Your task to perform on an android device: snooze an email in the gmail app Image 0: 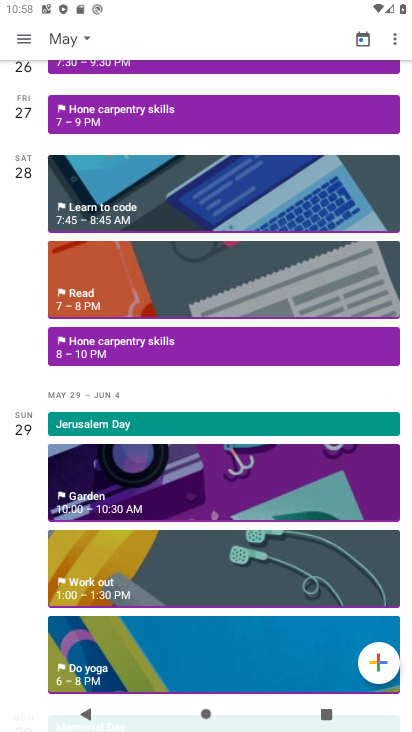
Step 0: press home button
Your task to perform on an android device: snooze an email in the gmail app Image 1: 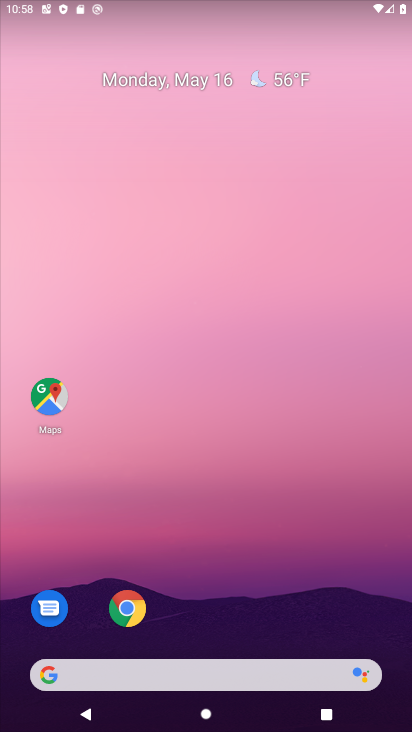
Step 1: drag from (330, 619) to (276, 142)
Your task to perform on an android device: snooze an email in the gmail app Image 2: 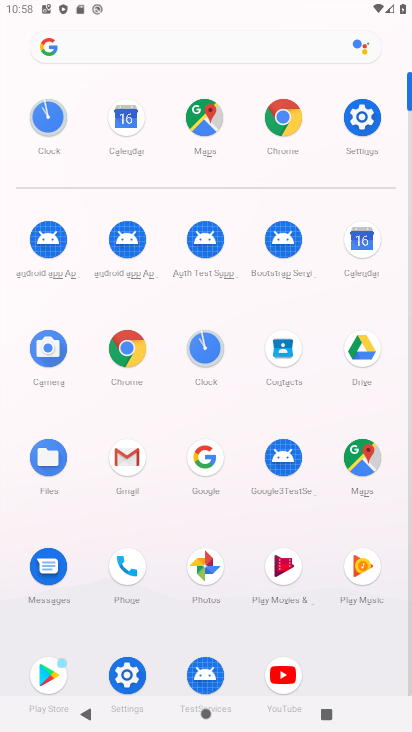
Step 2: click (109, 474)
Your task to perform on an android device: snooze an email in the gmail app Image 3: 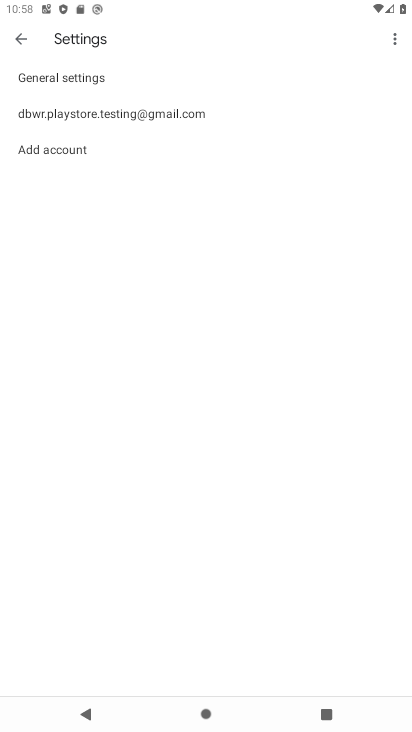
Step 3: click (170, 113)
Your task to perform on an android device: snooze an email in the gmail app Image 4: 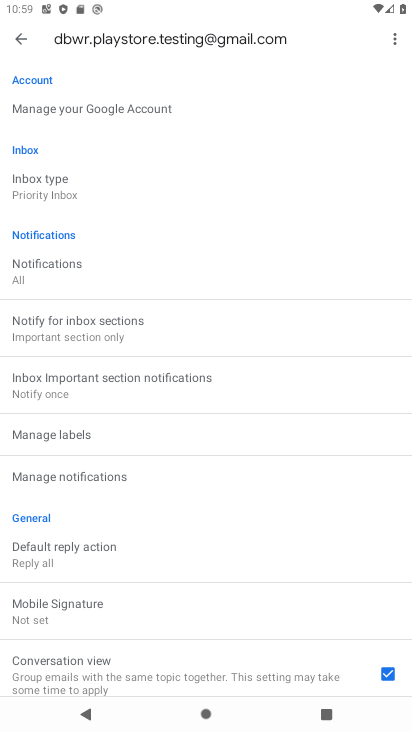
Step 4: click (27, 50)
Your task to perform on an android device: snooze an email in the gmail app Image 5: 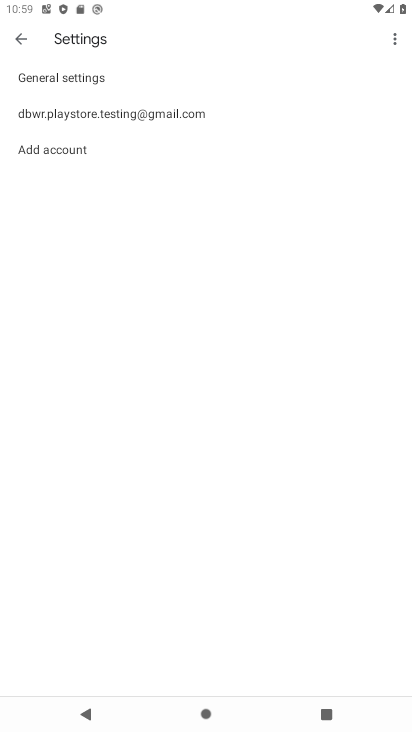
Step 5: click (29, 49)
Your task to perform on an android device: snooze an email in the gmail app Image 6: 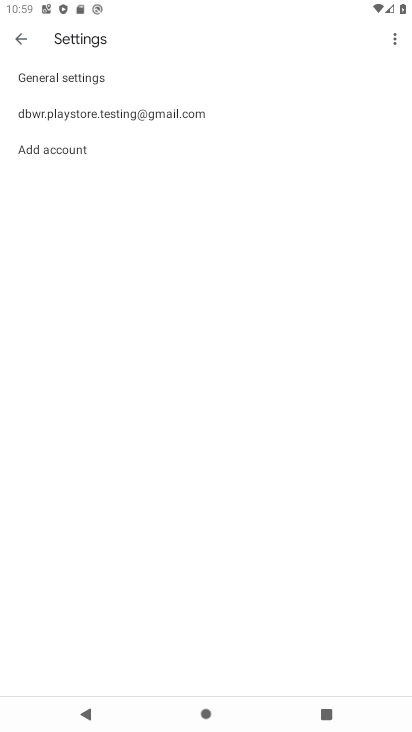
Step 6: click (22, 44)
Your task to perform on an android device: snooze an email in the gmail app Image 7: 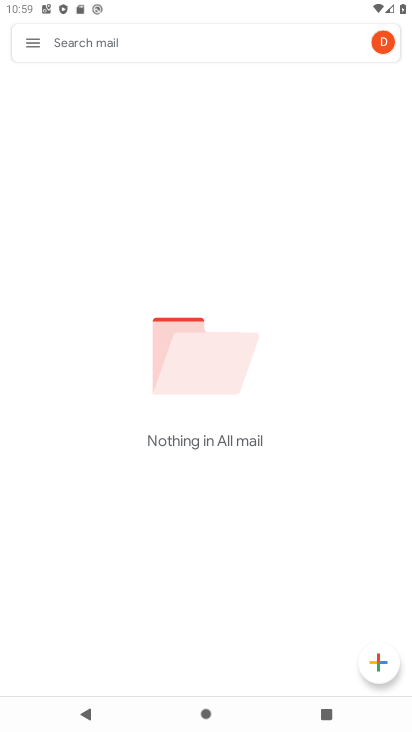
Step 7: click (27, 47)
Your task to perform on an android device: snooze an email in the gmail app Image 8: 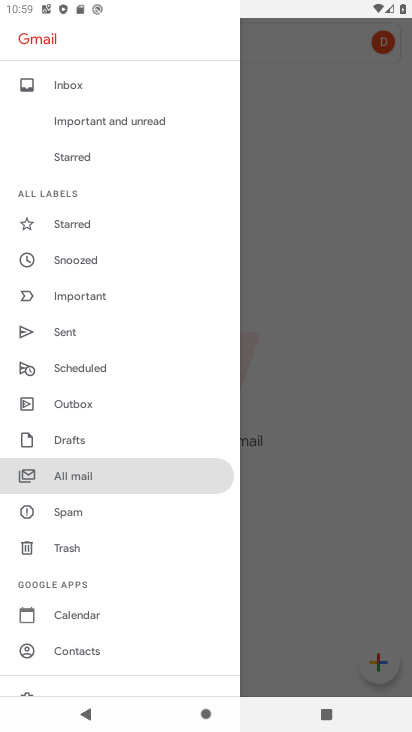
Step 8: click (93, 262)
Your task to perform on an android device: snooze an email in the gmail app Image 9: 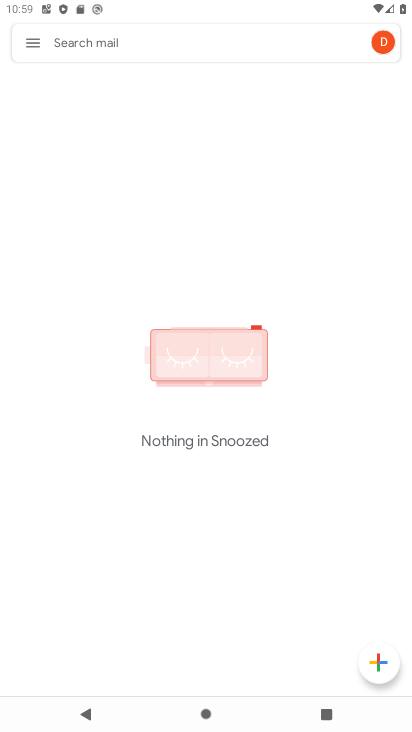
Step 9: task complete